Your task to perform on an android device: Open Google Maps Image 0: 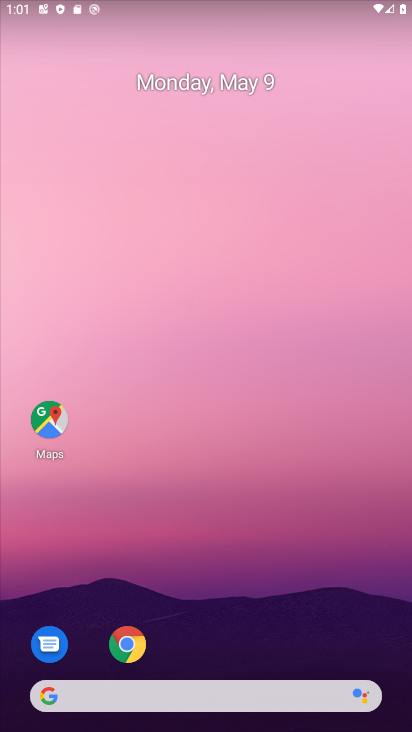
Step 0: drag from (206, 653) to (191, 311)
Your task to perform on an android device: Open Google Maps Image 1: 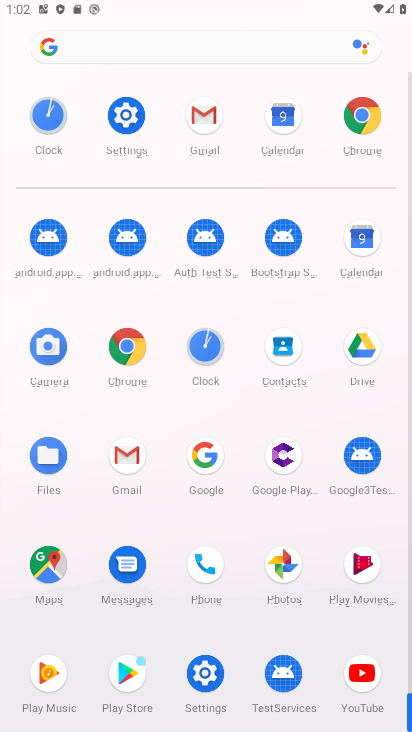
Step 1: drag from (220, 555) to (228, 347)
Your task to perform on an android device: Open Google Maps Image 2: 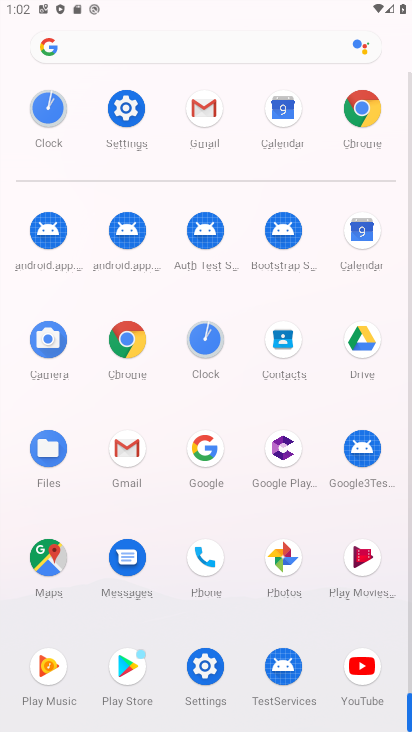
Step 2: click (54, 573)
Your task to perform on an android device: Open Google Maps Image 3: 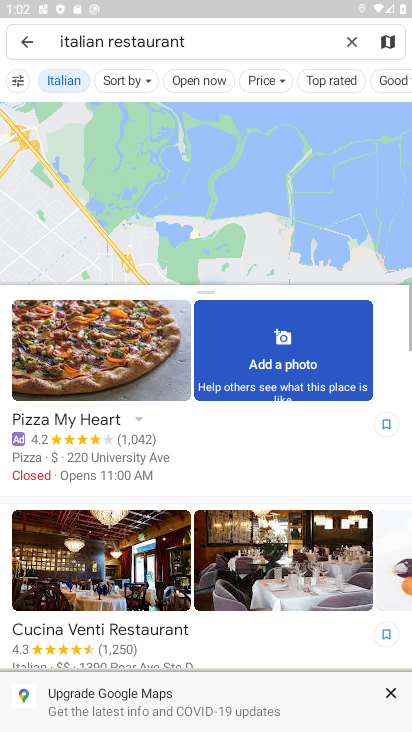
Step 3: task complete